Your task to perform on an android device: When is my next meeting? Image 0: 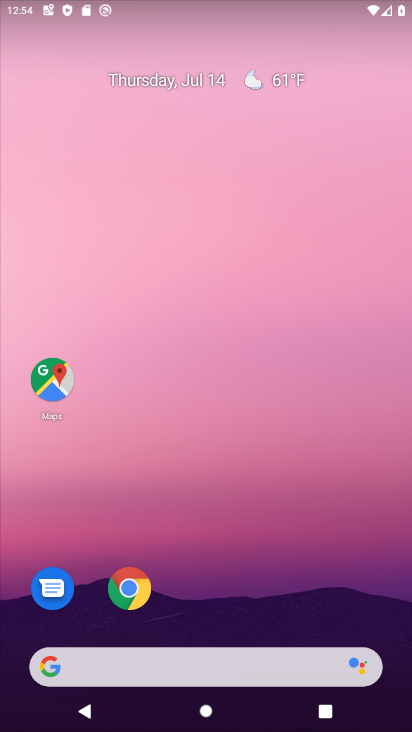
Step 0: drag from (271, 594) to (248, 247)
Your task to perform on an android device: When is my next meeting? Image 1: 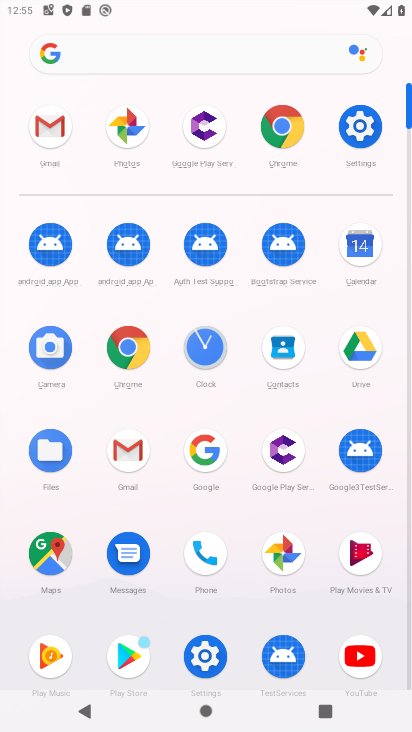
Step 1: click (367, 234)
Your task to perform on an android device: When is my next meeting? Image 2: 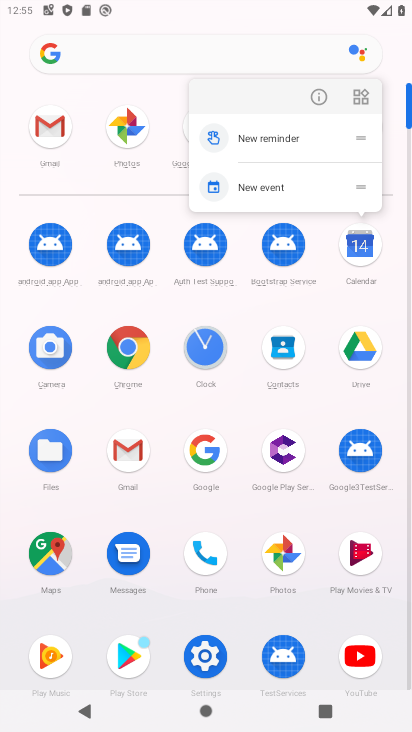
Step 2: click (351, 243)
Your task to perform on an android device: When is my next meeting? Image 3: 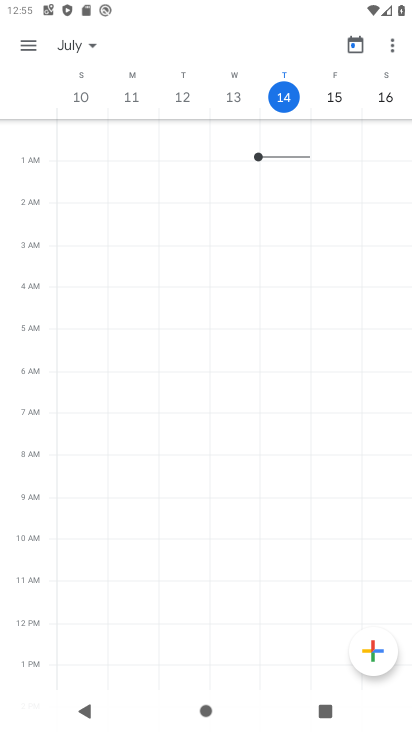
Step 3: click (323, 91)
Your task to perform on an android device: When is my next meeting? Image 4: 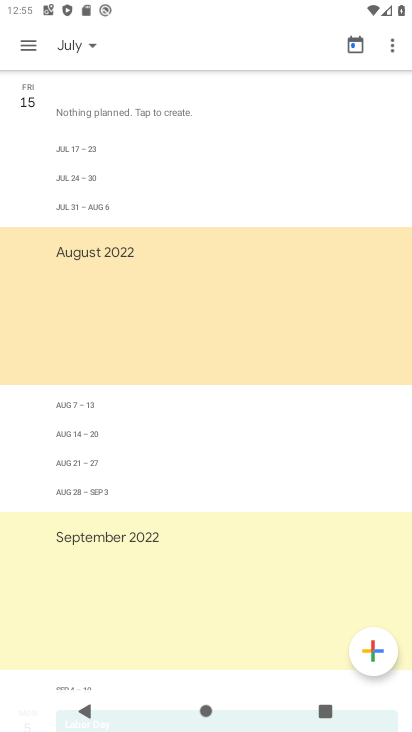
Step 4: task complete